Your task to perform on an android device: Open Google Chrome and open the bookmarks view Image 0: 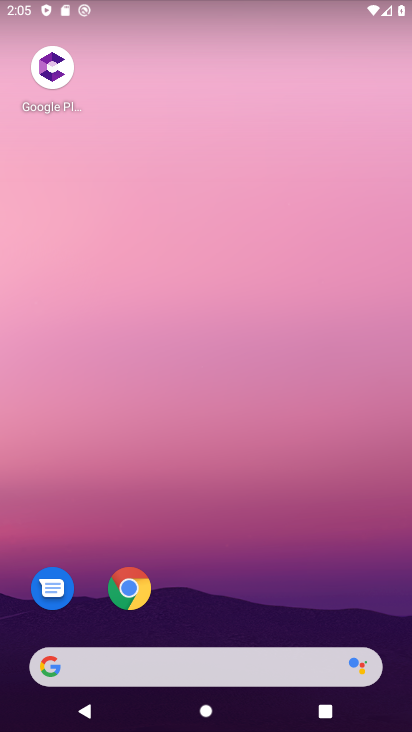
Step 0: drag from (156, 538) to (128, 108)
Your task to perform on an android device: Open Google Chrome and open the bookmarks view Image 1: 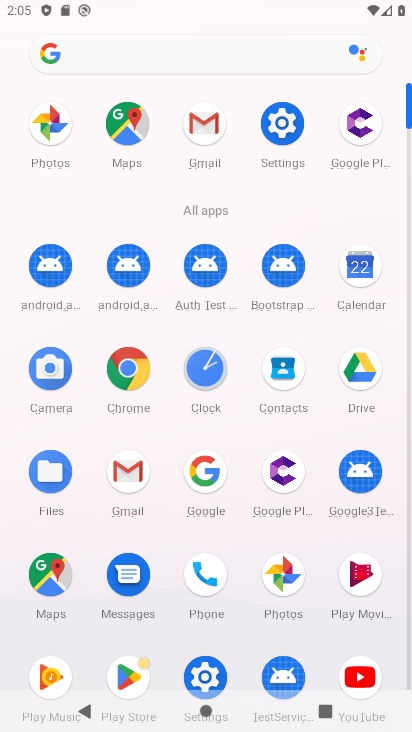
Step 1: click (127, 357)
Your task to perform on an android device: Open Google Chrome and open the bookmarks view Image 2: 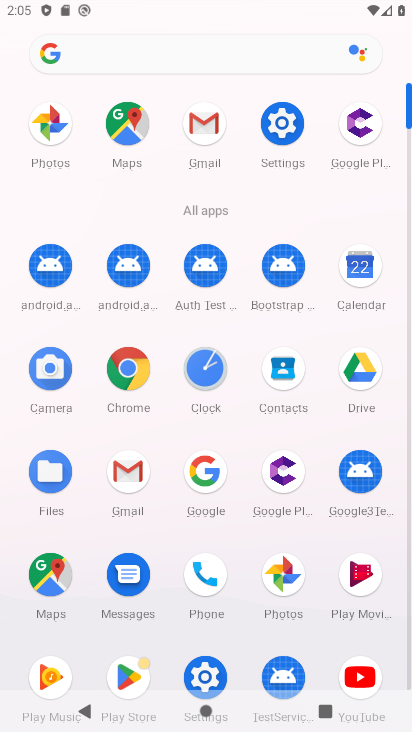
Step 2: click (127, 357)
Your task to perform on an android device: Open Google Chrome and open the bookmarks view Image 3: 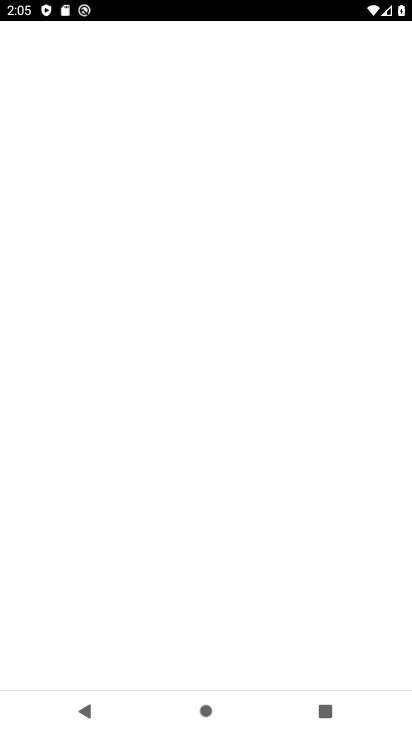
Step 3: click (129, 370)
Your task to perform on an android device: Open Google Chrome and open the bookmarks view Image 4: 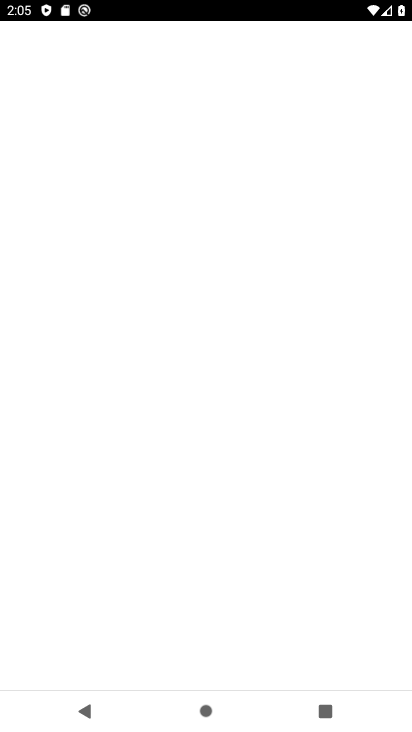
Step 4: click (130, 371)
Your task to perform on an android device: Open Google Chrome and open the bookmarks view Image 5: 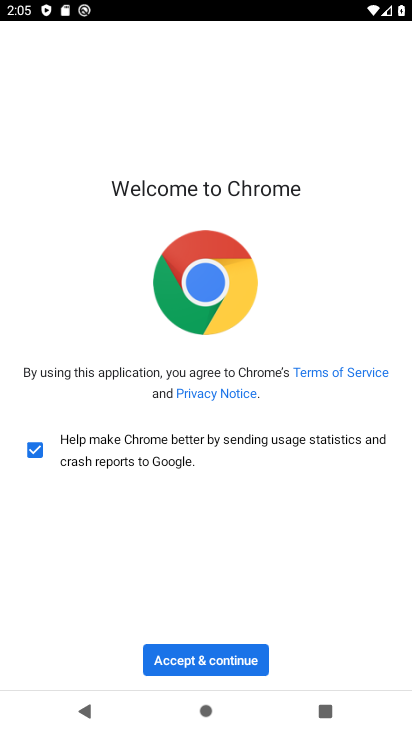
Step 5: click (199, 643)
Your task to perform on an android device: Open Google Chrome and open the bookmarks view Image 6: 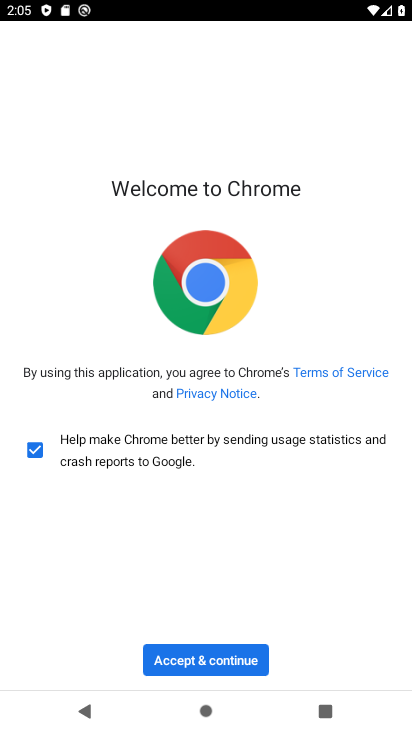
Step 6: click (199, 643)
Your task to perform on an android device: Open Google Chrome and open the bookmarks view Image 7: 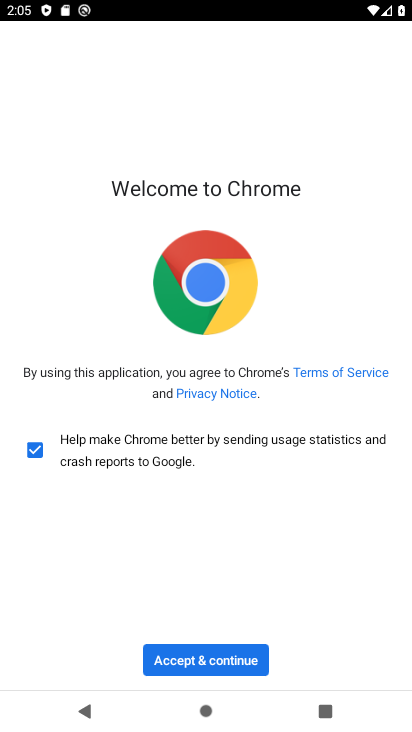
Step 7: click (199, 643)
Your task to perform on an android device: Open Google Chrome and open the bookmarks view Image 8: 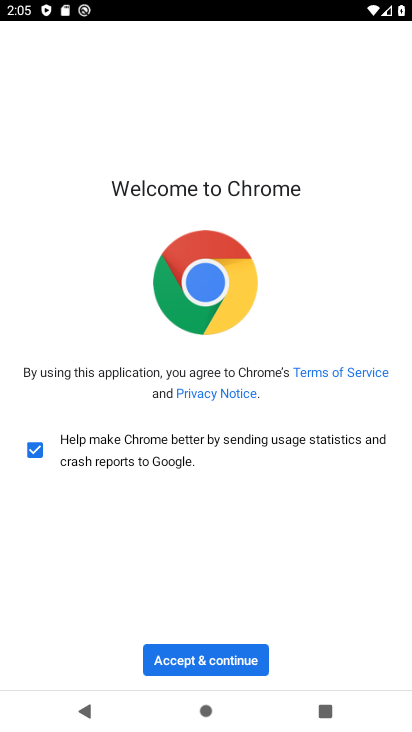
Step 8: click (199, 643)
Your task to perform on an android device: Open Google Chrome and open the bookmarks view Image 9: 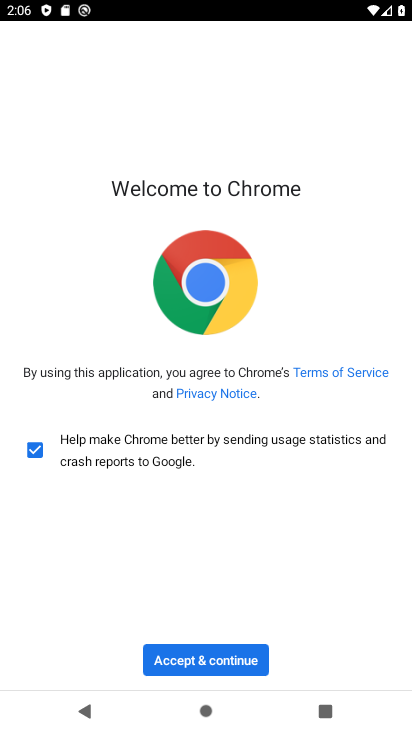
Step 9: click (200, 658)
Your task to perform on an android device: Open Google Chrome and open the bookmarks view Image 10: 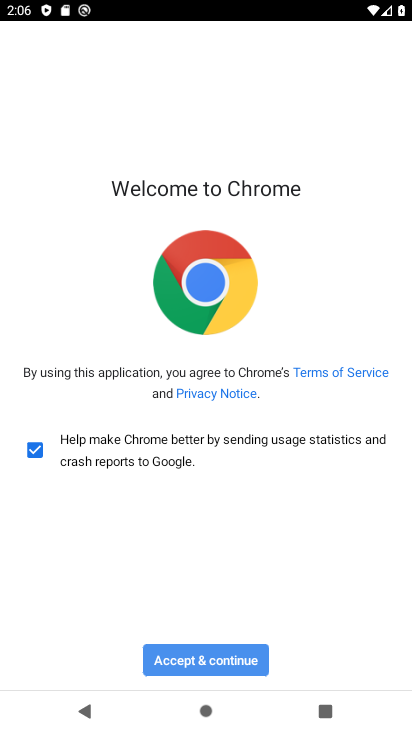
Step 10: click (200, 658)
Your task to perform on an android device: Open Google Chrome and open the bookmarks view Image 11: 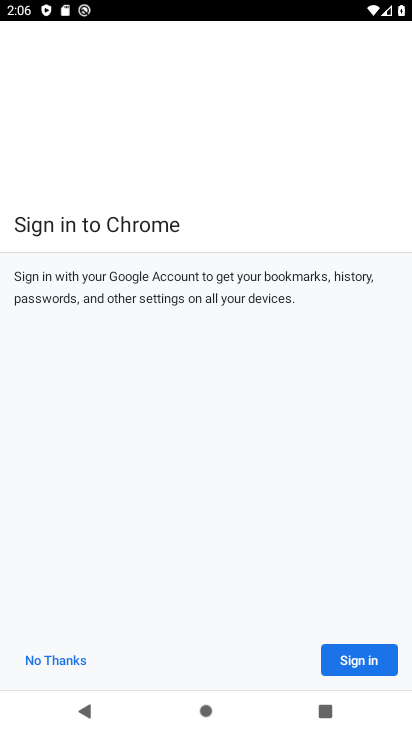
Step 11: click (200, 658)
Your task to perform on an android device: Open Google Chrome and open the bookmarks view Image 12: 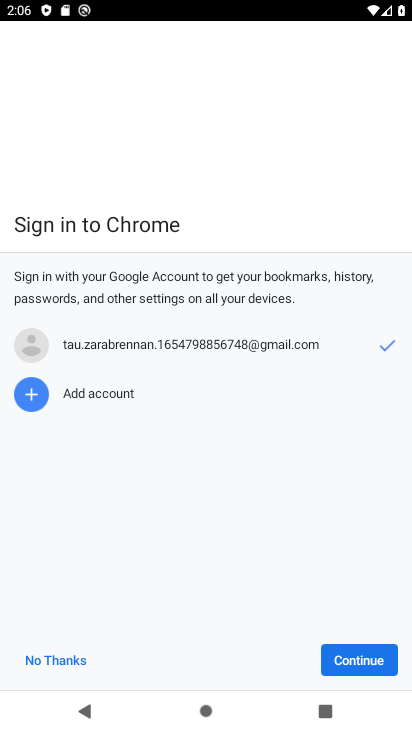
Step 12: click (52, 666)
Your task to perform on an android device: Open Google Chrome and open the bookmarks view Image 13: 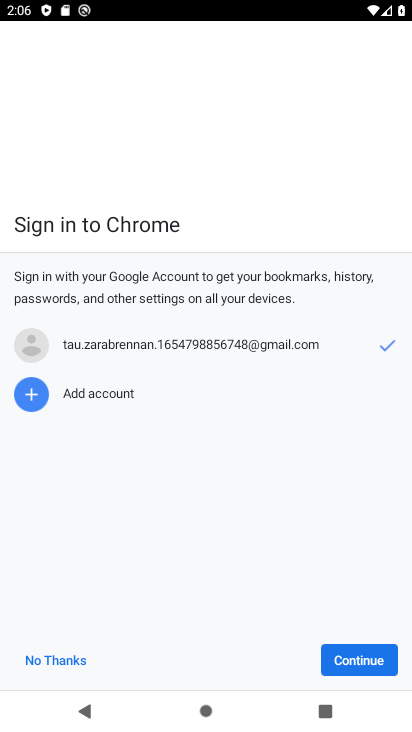
Step 13: click (53, 670)
Your task to perform on an android device: Open Google Chrome and open the bookmarks view Image 14: 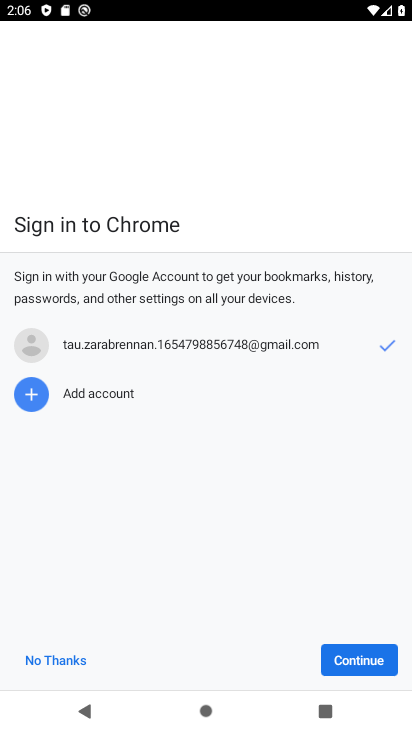
Step 14: click (56, 673)
Your task to perform on an android device: Open Google Chrome and open the bookmarks view Image 15: 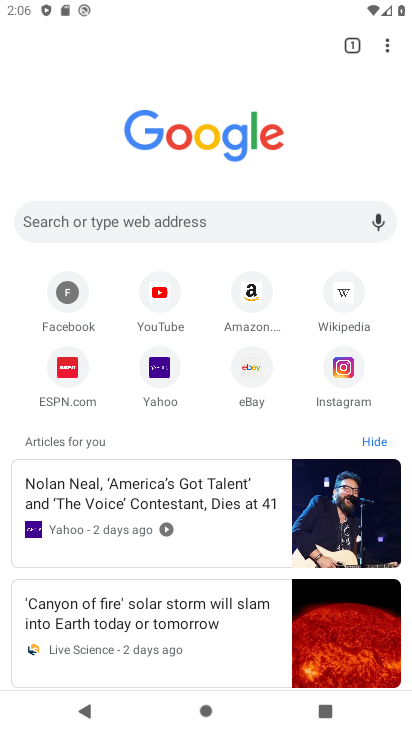
Step 15: click (391, 42)
Your task to perform on an android device: Open Google Chrome and open the bookmarks view Image 16: 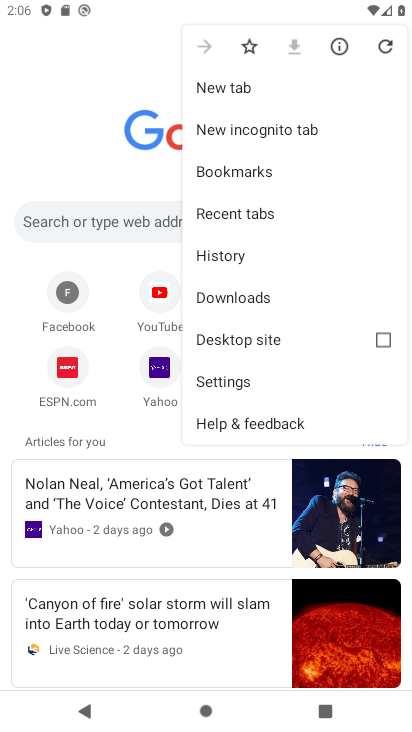
Step 16: click (227, 179)
Your task to perform on an android device: Open Google Chrome and open the bookmarks view Image 17: 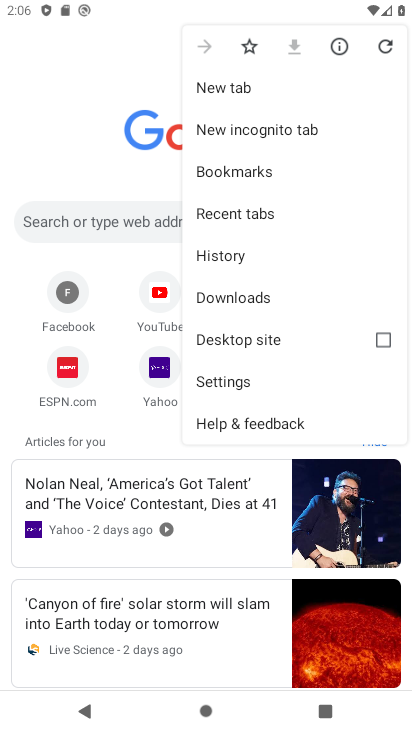
Step 17: click (227, 179)
Your task to perform on an android device: Open Google Chrome and open the bookmarks view Image 18: 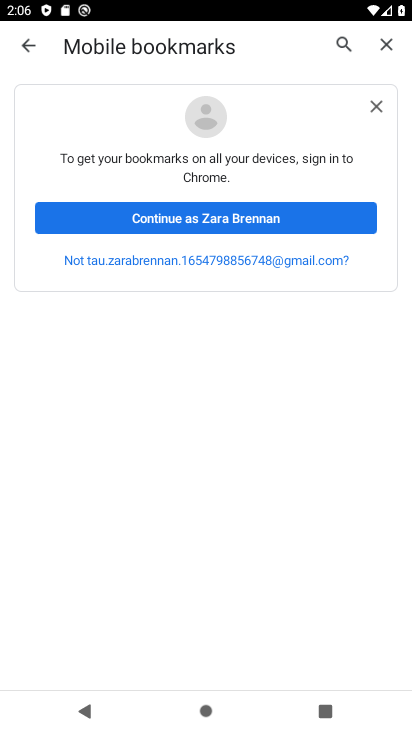
Step 18: click (370, 107)
Your task to perform on an android device: Open Google Chrome and open the bookmarks view Image 19: 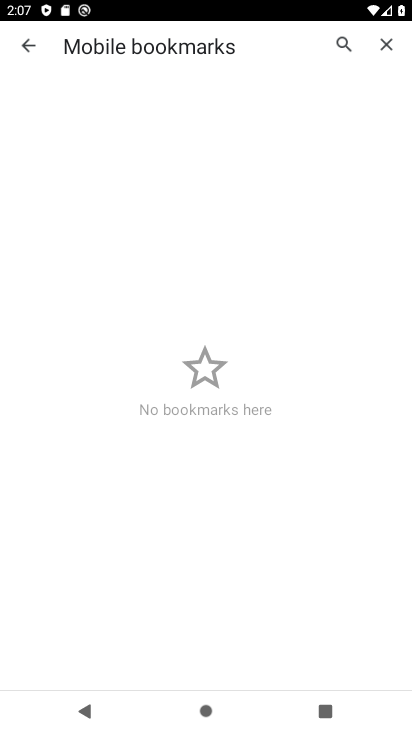
Step 19: task complete